Your task to perform on an android device: find snoozed emails in the gmail app Image 0: 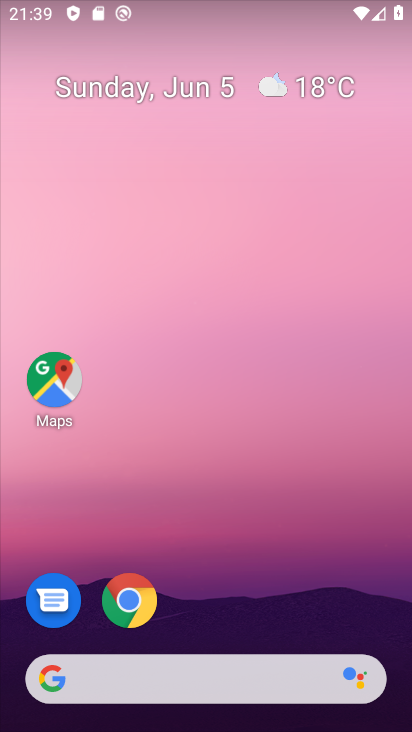
Step 0: drag from (259, 597) to (237, 238)
Your task to perform on an android device: find snoozed emails in the gmail app Image 1: 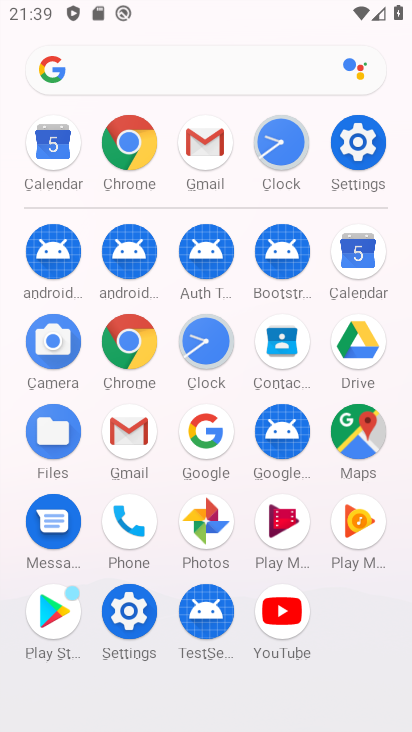
Step 1: click (211, 154)
Your task to perform on an android device: find snoozed emails in the gmail app Image 2: 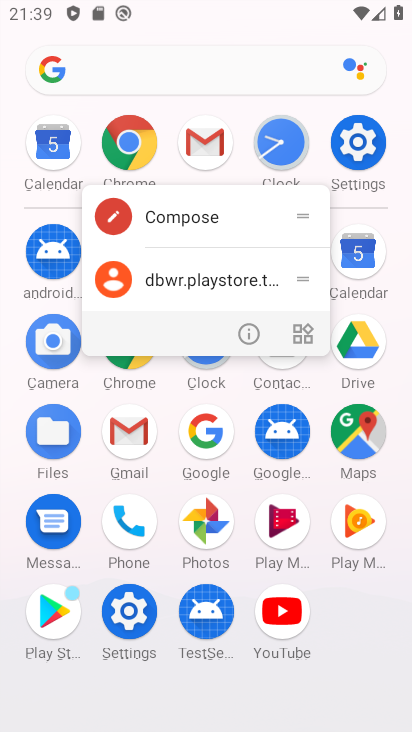
Step 2: click (196, 134)
Your task to perform on an android device: find snoozed emails in the gmail app Image 3: 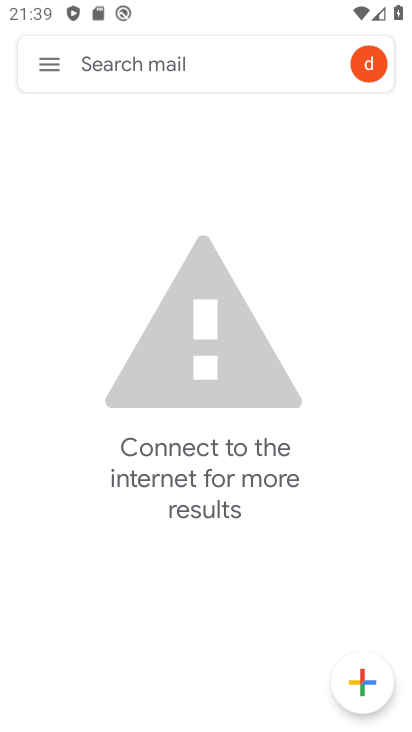
Step 3: click (34, 60)
Your task to perform on an android device: find snoozed emails in the gmail app Image 4: 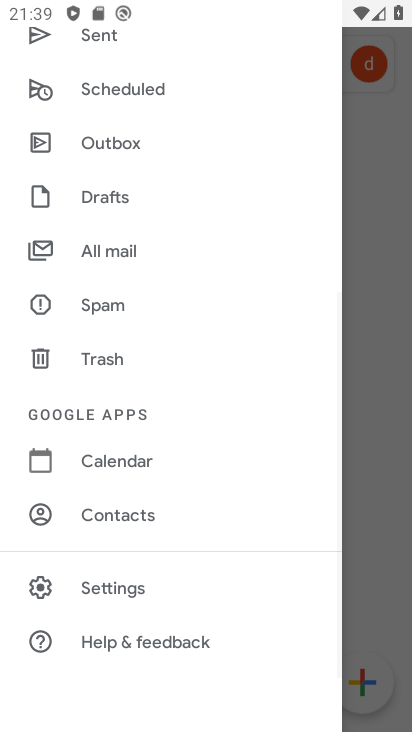
Step 4: drag from (115, 189) to (105, 599)
Your task to perform on an android device: find snoozed emails in the gmail app Image 5: 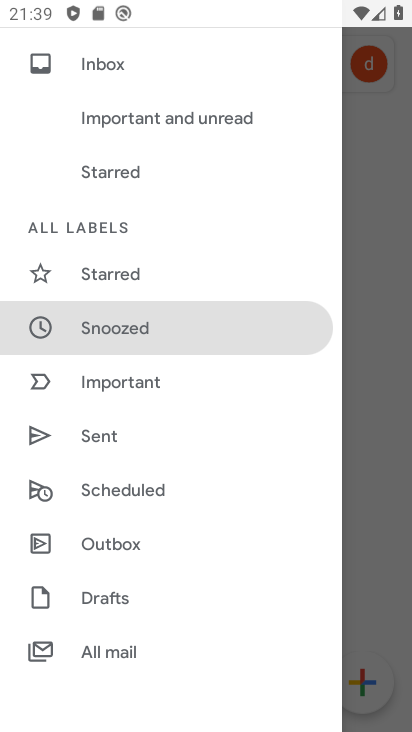
Step 5: click (128, 327)
Your task to perform on an android device: find snoozed emails in the gmail app Image 6: 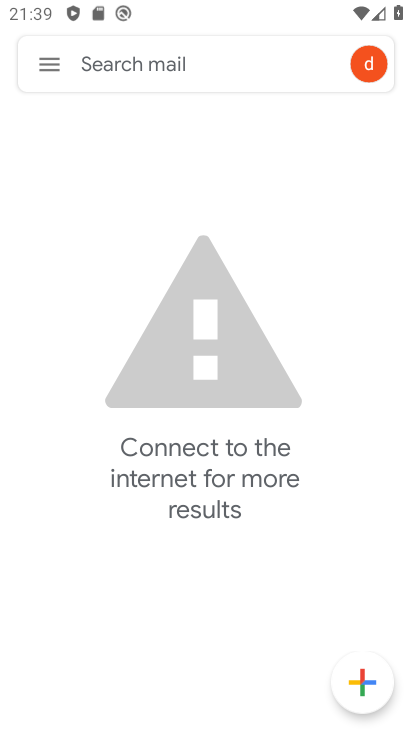
Step 6: task complete